Your task to perform on an android device: Open calendar and show me the fourth week of next month Image 0: 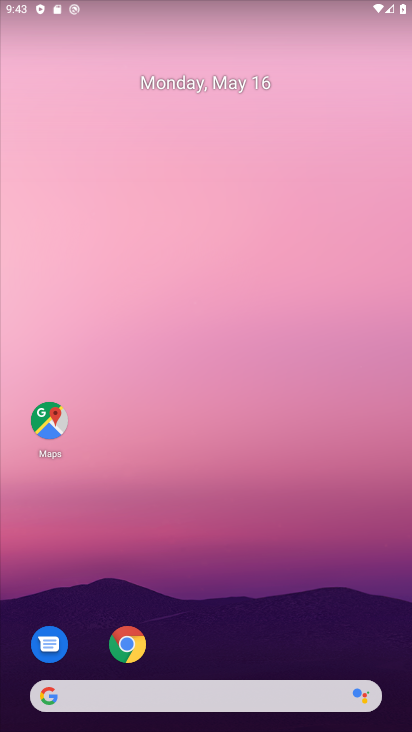
Step 0: click (226, 64)
Your task to perform on an android device: Open calendar and show me the fourth week of next month Image 1: 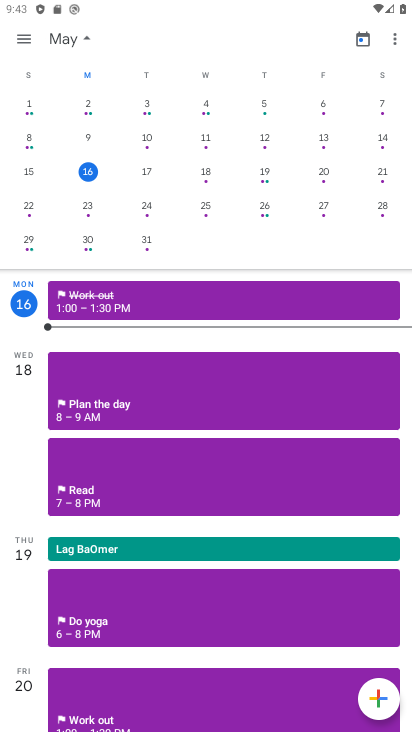
Step 1: drag from (381, 137) to (0, 155)
Your task to perform on an android device: Open calendar and show me the fourth week of next month Image 2: 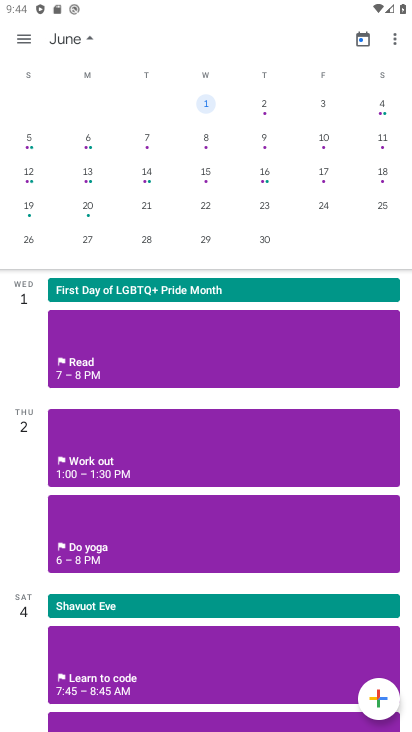
Step 2: click (92, 144)
Your task to perform on an android device: Open calendar and show me the fourth week of next month Image 3: 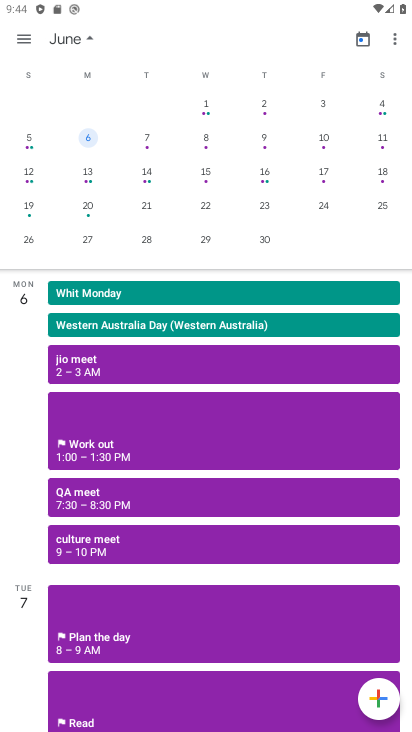
Step 3: click (258, 204)
Your task to perform on an android device: Open calendar and show me the fourth week of next month Image 4: 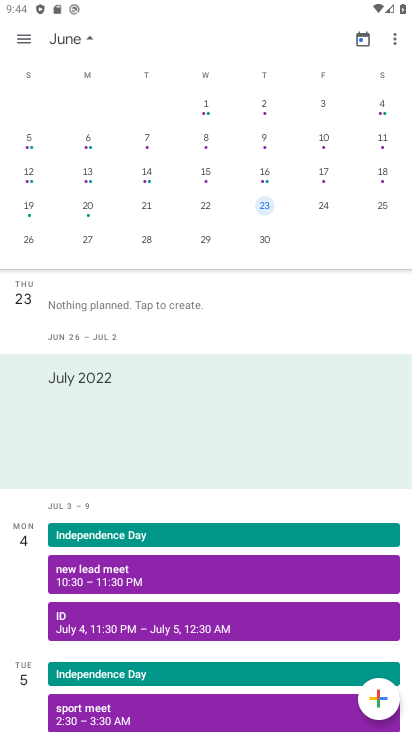
Step 4: click (160, 208)
Your task to perform on an android device: Open calendar and show me the fourth week of next month Image 5: 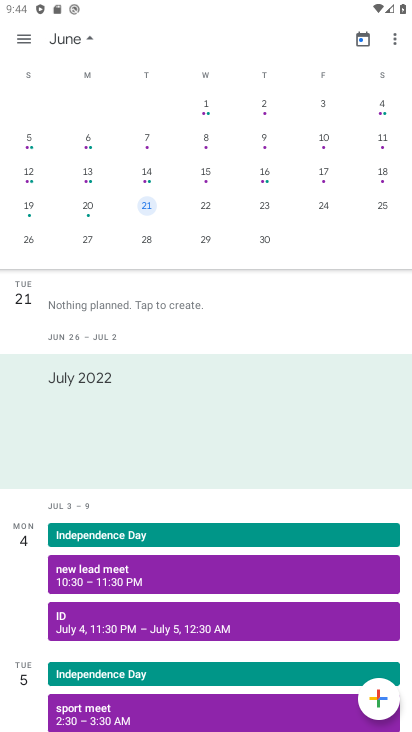
Step 5: task complete